Your task to perform on an android device: Find coffee shops on Maps Image 0: 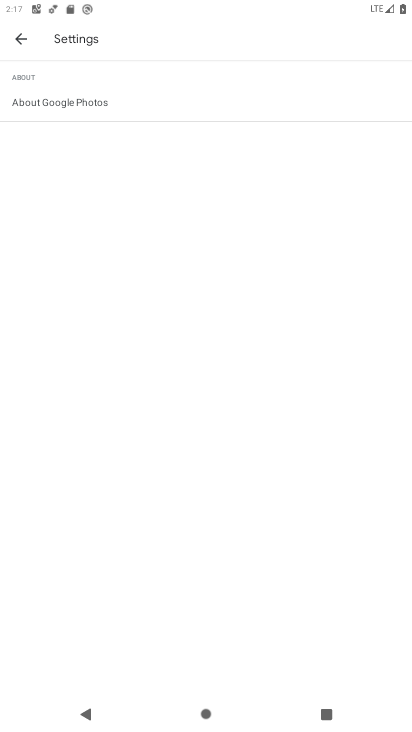
Step 0: press home button
Your task to perform on an android device: Find coffee shops on Maps Image 1: 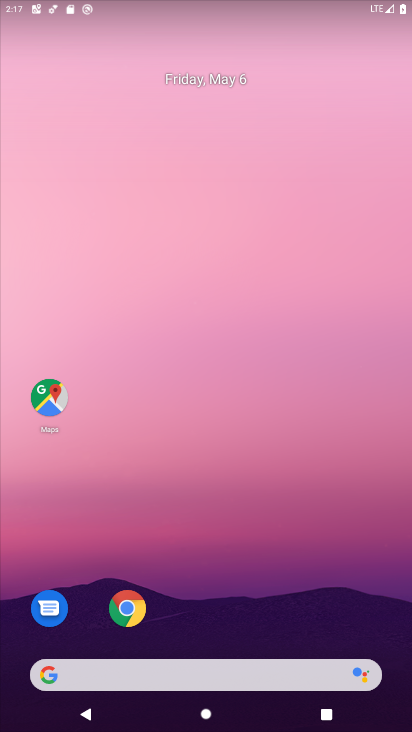
Step 1: click (52, 396)
Your task to perform on an android device: Find coffee shops on Maps Image 2: 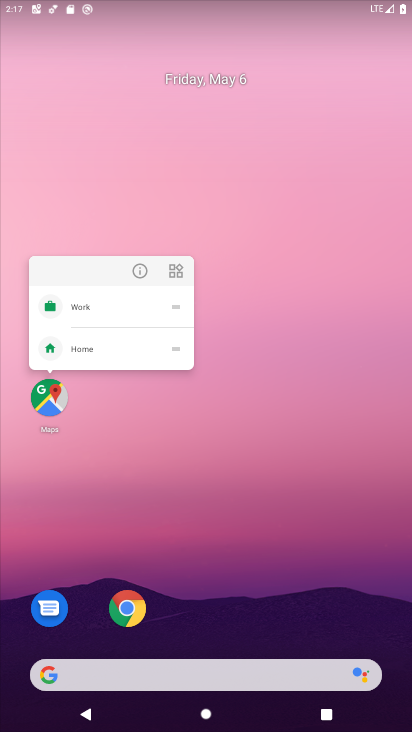
Step 2: click (51, 398)
Your task to perform on an android device: Find coffee shops on Maps Image 3: 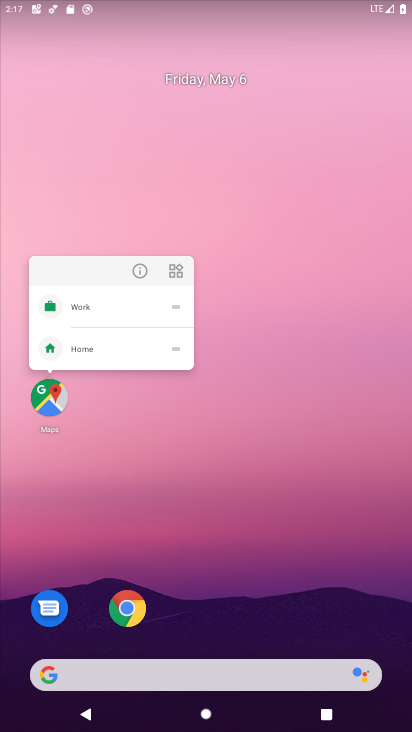
Step 3: click (50, 402)
Your task to perform on an android device: Find coffee shops on Maps Image 4: 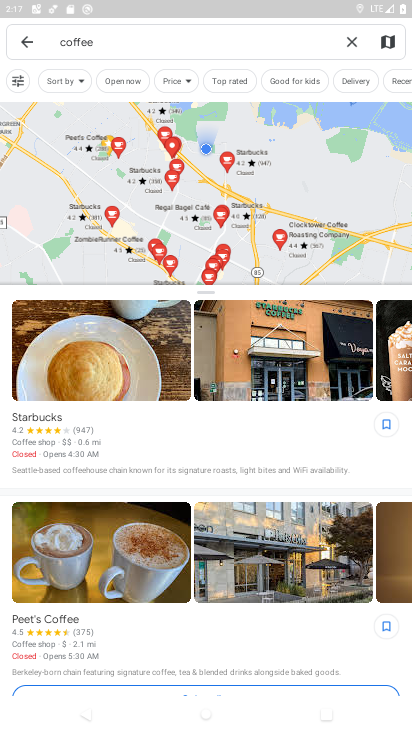
Step 4: click (122, 36)
Your task to perform on an android device: Find coffee shops on Maps Image 5: 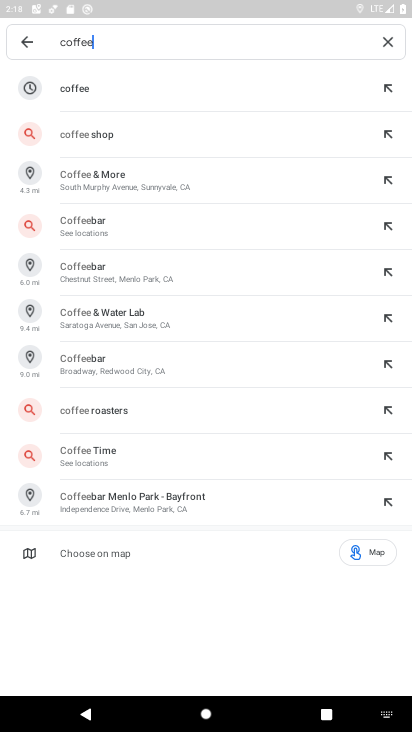
Step 5: type " shops"
Your task to perform on an android device: Find coffee shops on Maps Image 6: 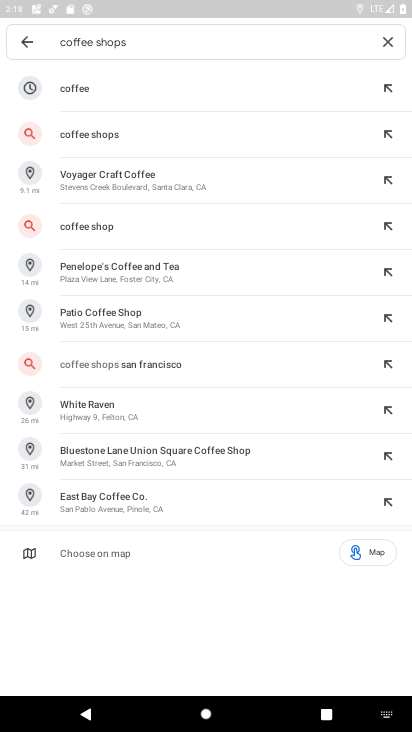
Step 6: click (205, 138)
Your task to perform on an android device: Find coffee shops on Maps Image 7: 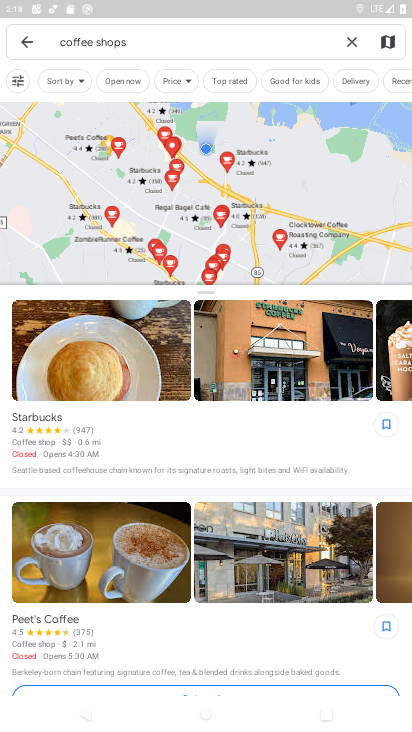
Step 7: task complete